Your task to perform on an android device: see tabs open on other devices in the chrome app Image 0: 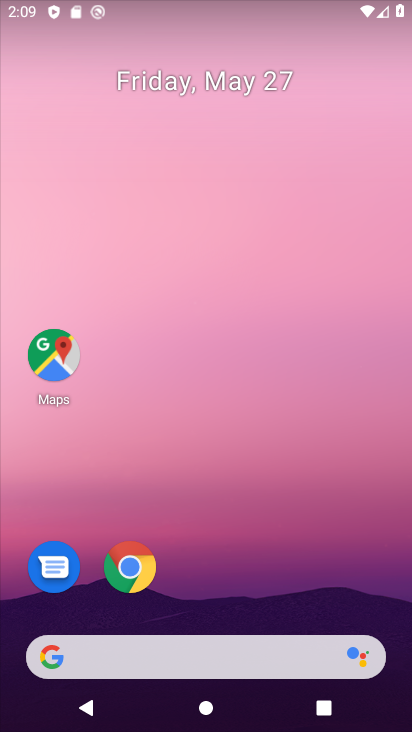
Step 0: click (145, 564)
Your task to perform on an android device: see tabs open on other devices in the chrome app Image 1: 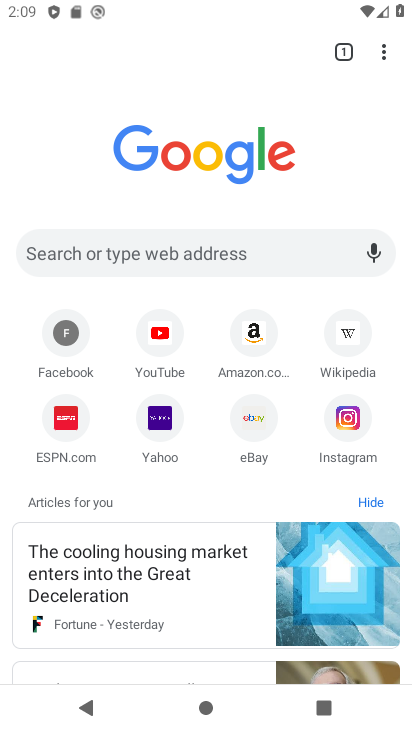
Step 1: click (381, 43)
Your task to perform on an android device: see tabs open on other devices in the chrome app Image 2: 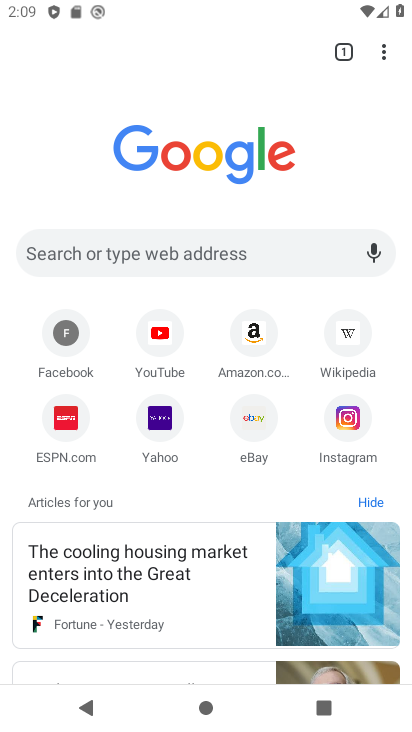
Step 2: drag from (385, 50) to (228, 430)
Your task to perform on an android device: see tabs open on other devices in the chrome app Image 3: 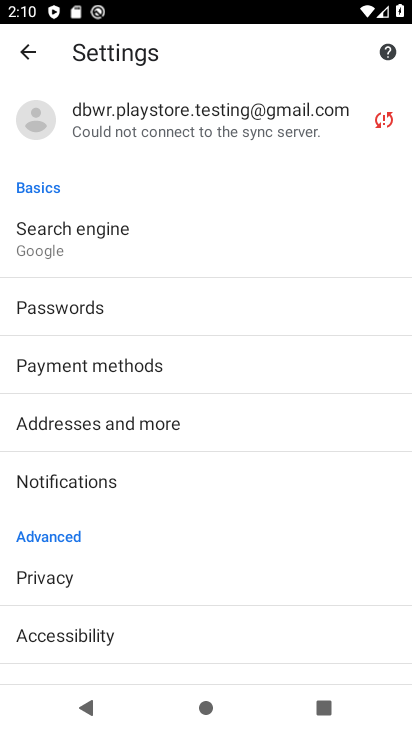
Step 3: click (35, 53)
Your task to perform on an android device: see tabs open on other devices in the chrome app Image 4: 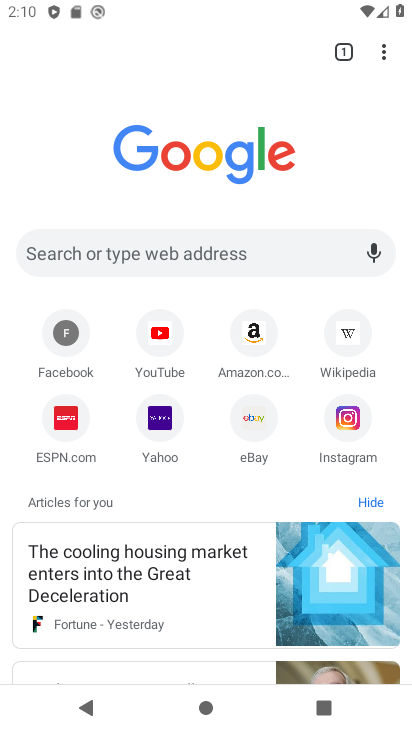
Step 4: drag from (376, 45) to (201, 240)
Your task to perform on an android device: see tabs open on other devices in the chrome app Image 5: 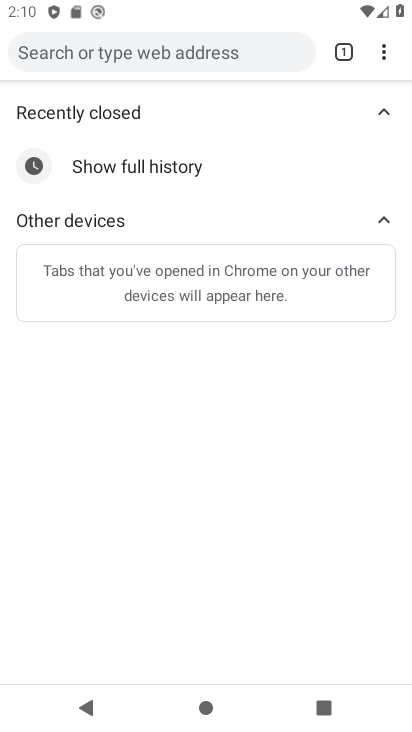
Step 5: click (80, 216)
Your task to perform on an android device: see tabs open on other devices in the chrome app Image 6: 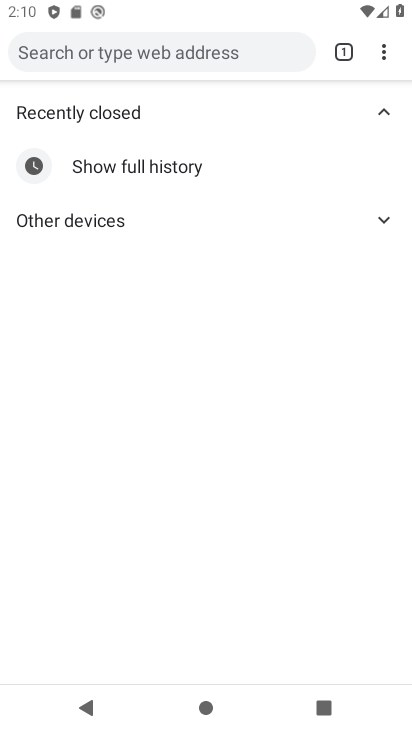
Step 6: task complete